Your task to perform on an android device: Open Amazon Image 0: 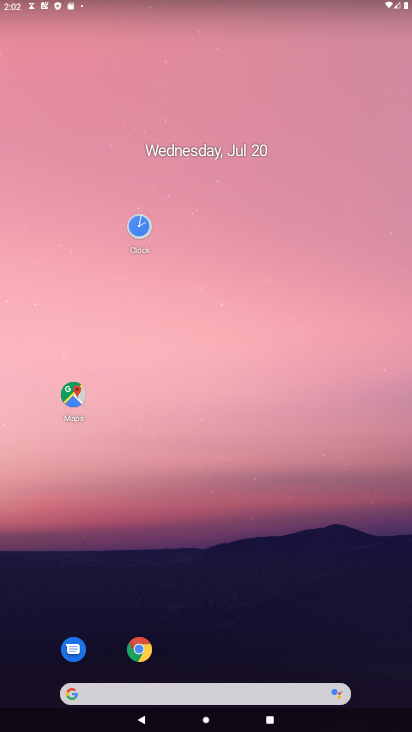
Step 0: click (153, 645)
Your task to perform on an android device: Open Amazon Image 1: 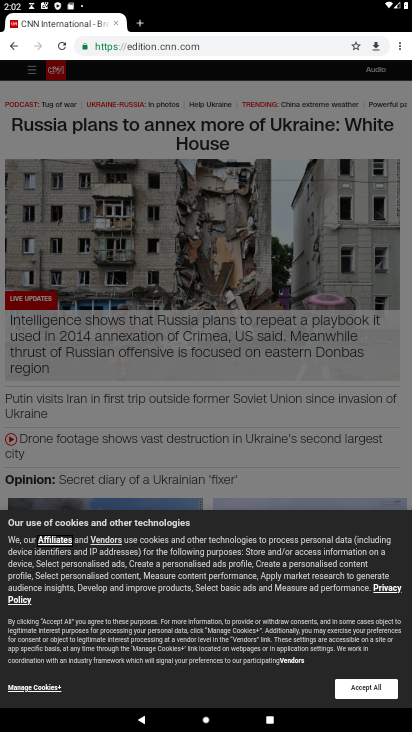
Step 1: click (144, 26)
Your task to perform on an android device: Open Amazon Image 2: 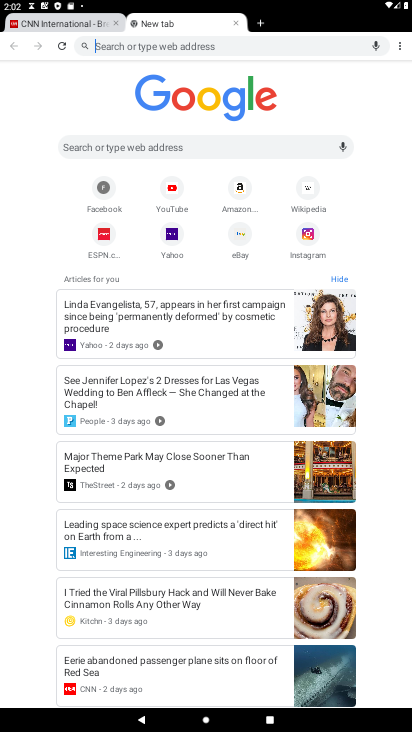
Step 2: click (244, 177)
Your task to perform on an android device: Open Amazon Image 3: 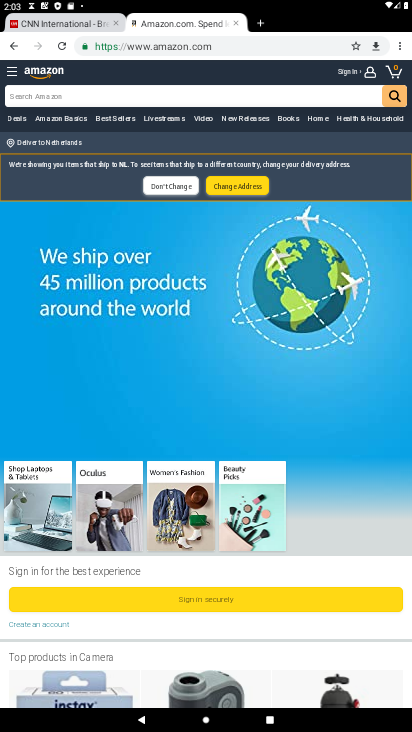
Step 3: task complete